Your task to perform on an android device: Go to display settings Image 0: 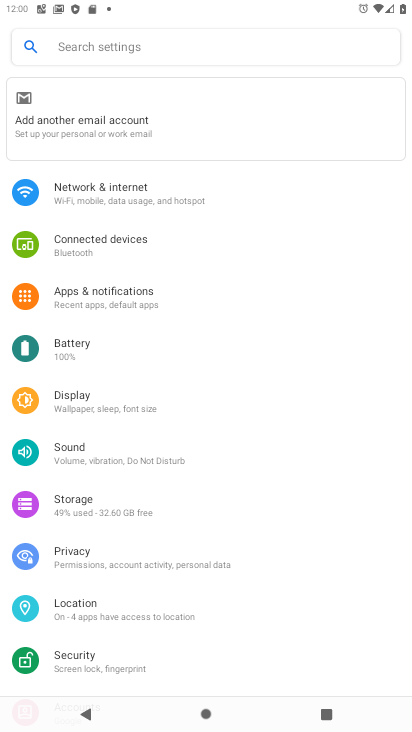
Step 0: press home button
Your task to perform on an android device: Go to display settings Image 1: 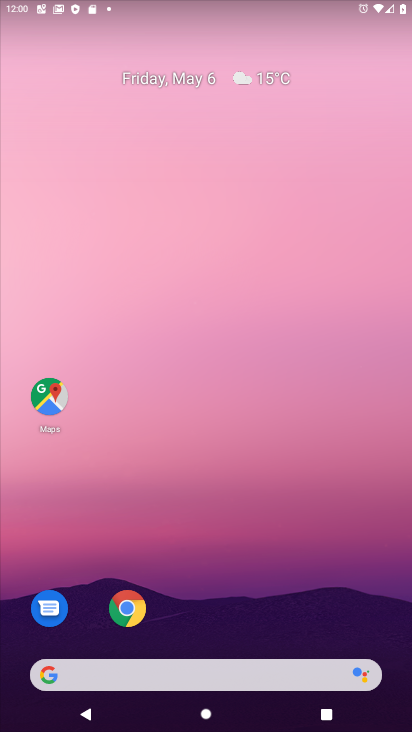
Step 1: drag from (209, 524) to (225, 269)
Your task to perform on an android device: Go to display settings Image 2: 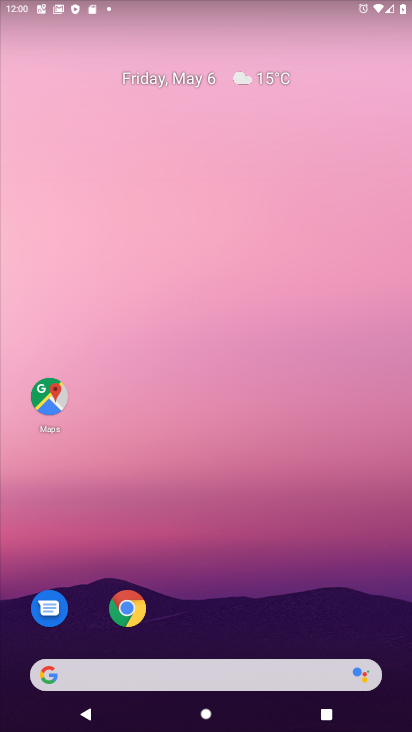
Step 2: drag from (257, 628) to (286, 155)
Your task to perform on an android device: Go to display settings Image 3: 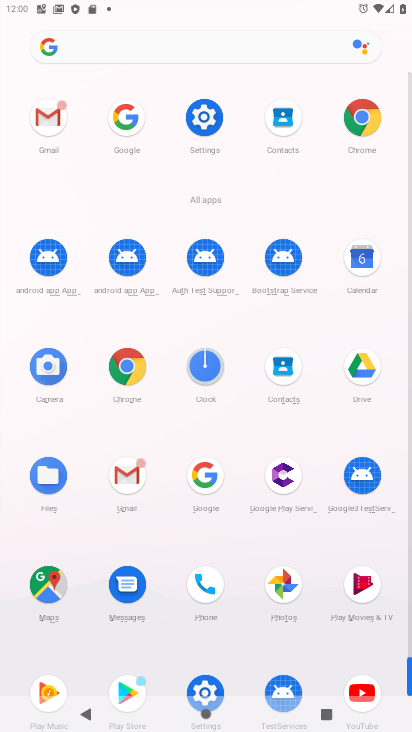
Step 3: click (198, 127)
Your task to perform on an android device: Go to display settings Image 4: 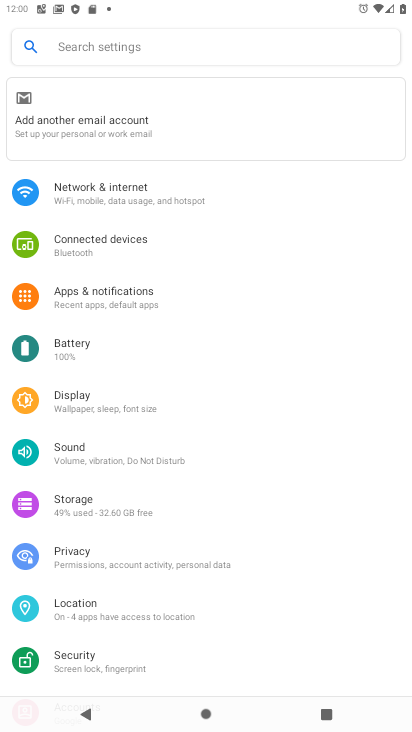
Step 4: click (128, 398)
Your task to perform on an android device: Go to display settings Image 5: 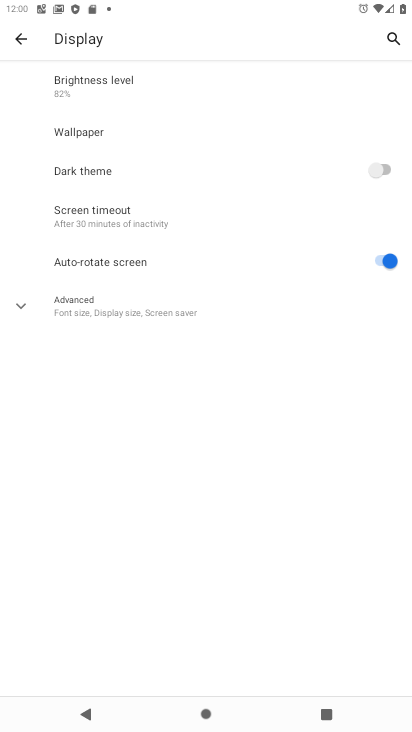
Step 5: task complete